Your task to perform on an android device: open wifi settings Image 0: 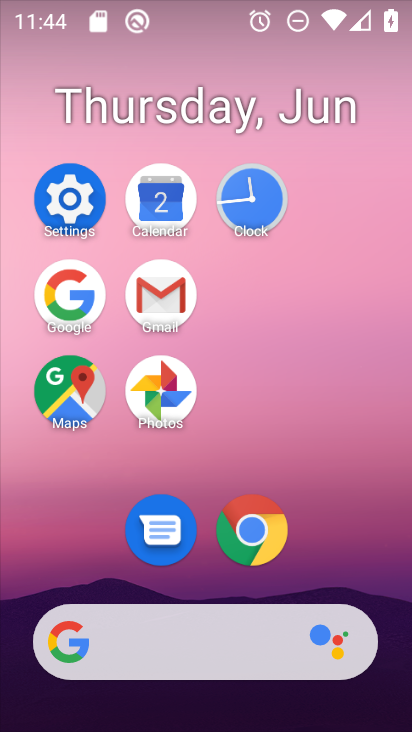
Step 0: click (45, 206)
Your task to perform on an android device: open wifi settings Image 1: 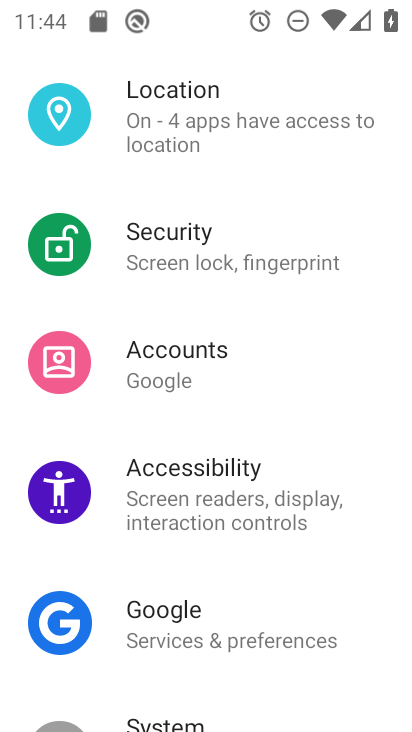
Step 1: drag from (298, 137) to (275, 575)
Your task to perform on an android device: open wifi settings Image 2: 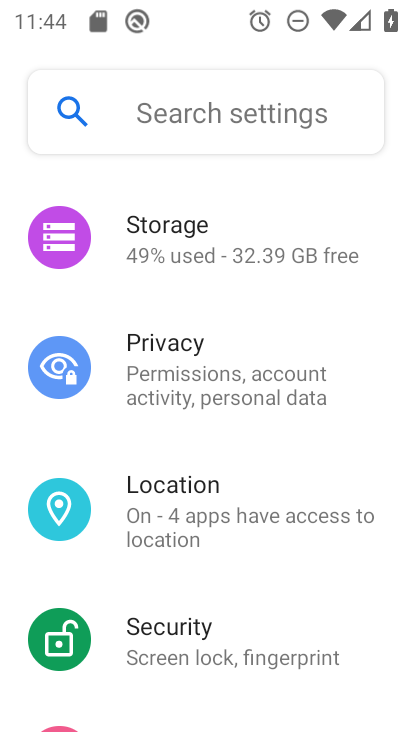
Step 2: drag from (277, 276) to (307, 626)
Your task to perform on an android device: open wifi settings Image 3: 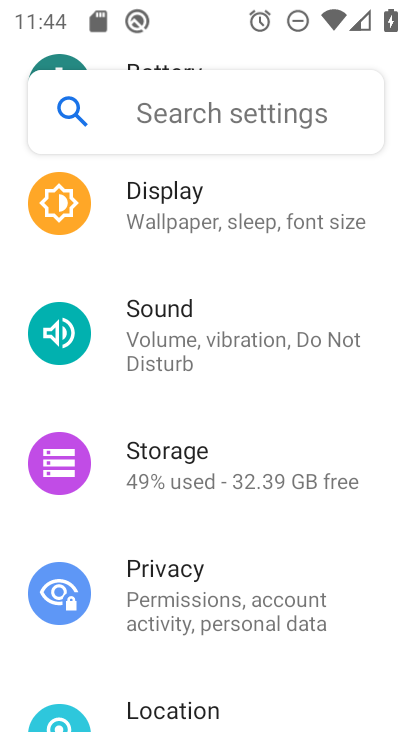
Step 3: drag from (290, 210) to (276, 570)
Your task to perform on an android device: open wifi settings Image 4: 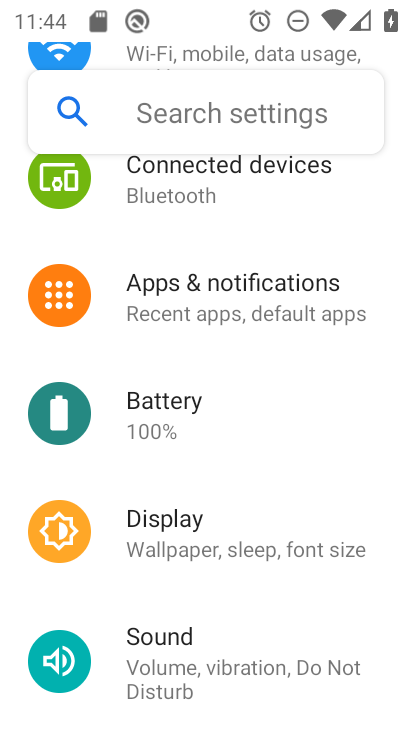
Step 4: drag from (303, 173) to (303, 563)
Your task to perform on an android device: open wifi settings Image 5: 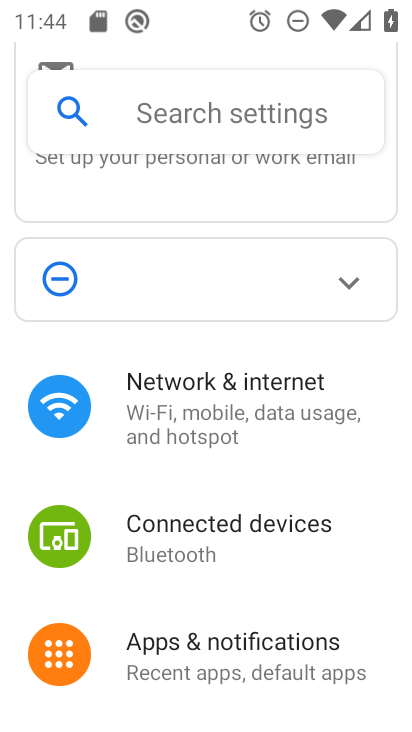
Step 5: click (287, 376)
Your task to perform on an android device: open wifi settings Image 6: 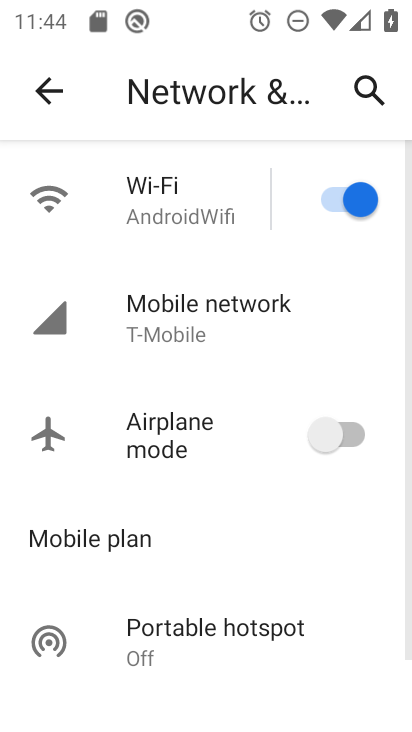
Step 6: task complete